Your task to perform on an android device: Search for sushi restaurants on Maps Image 0: 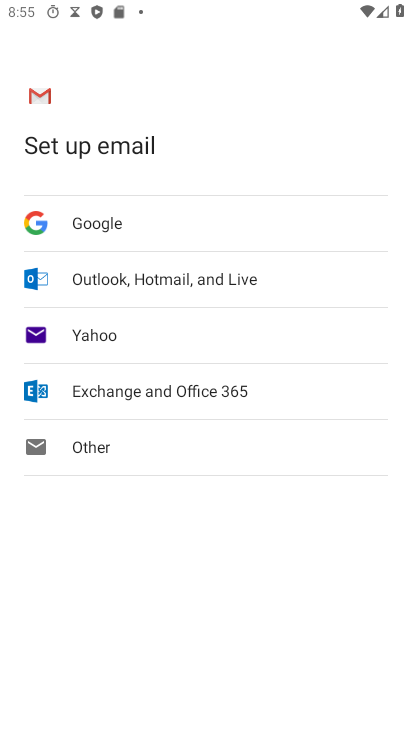
Step 0: press home button
Your task to perform on an android device: Search for sushi restaurants on Maps Image 1: 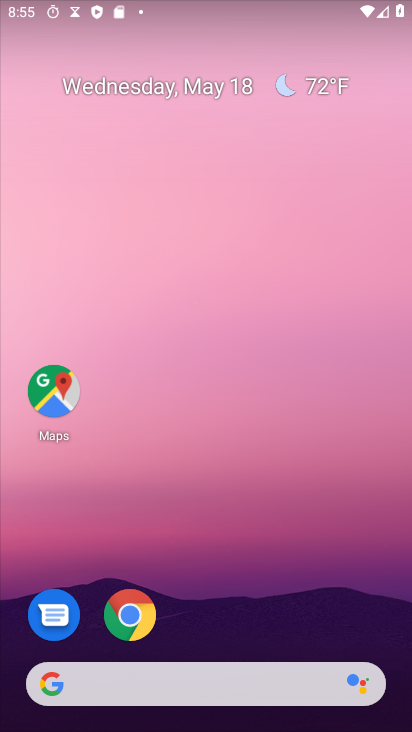
Step 1: click (44, 408)
Your task to perform on an android device: Search for sushi restaurants on Maps Image 2: 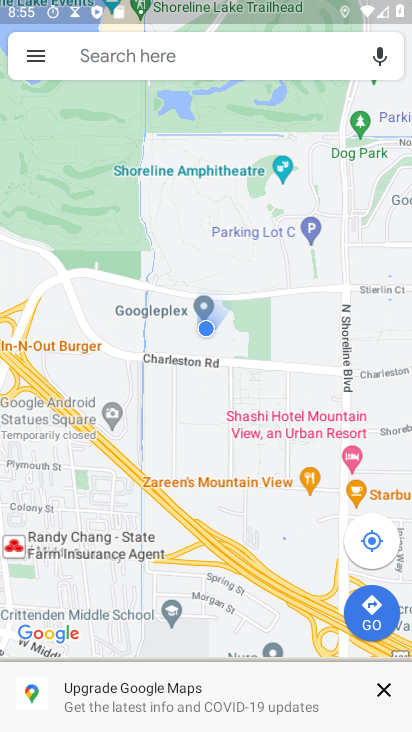
Step 2: click (219, 50)
Your task to perform on an android device: Search for sushi restaurants on Maps Image 3: 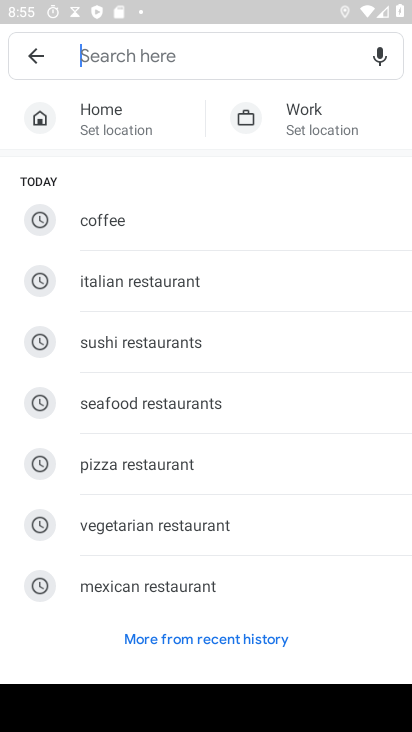
Step 3: click (154, 344)
Your task to perform on an android device: Search for sushi restaurants on Maps Image 4: 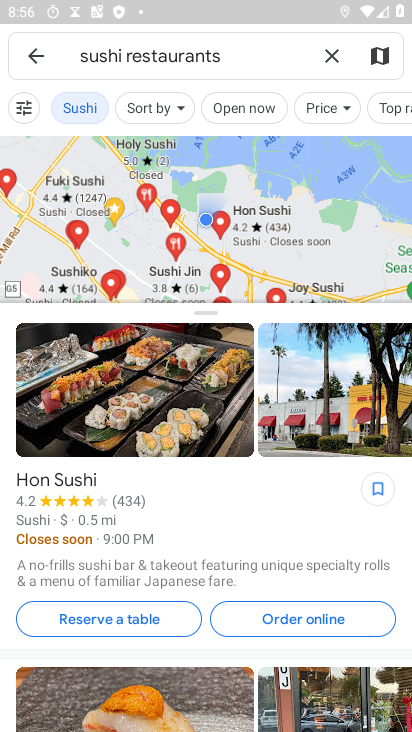
Step 4: task complete